Your task to perform on an android device: turn off priority inbox in the gmail app Image 0: 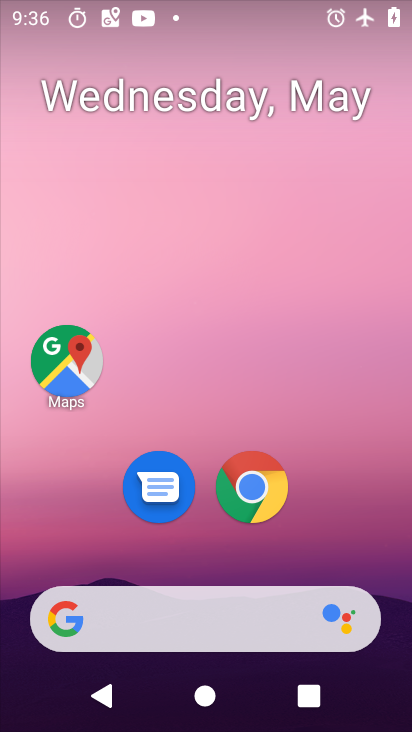
Step 0: drag from (204, 560) to (208, 133)
Your task to perform on an android device: turn off priority inbox in the gmail app Image 1: 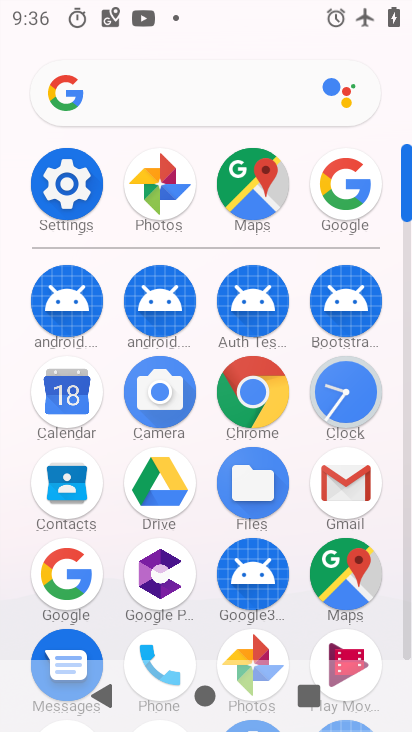
Step 1: click (332, 466)
Your task to perform on an android device: turn off priority inbox in the gmail app Image 2: 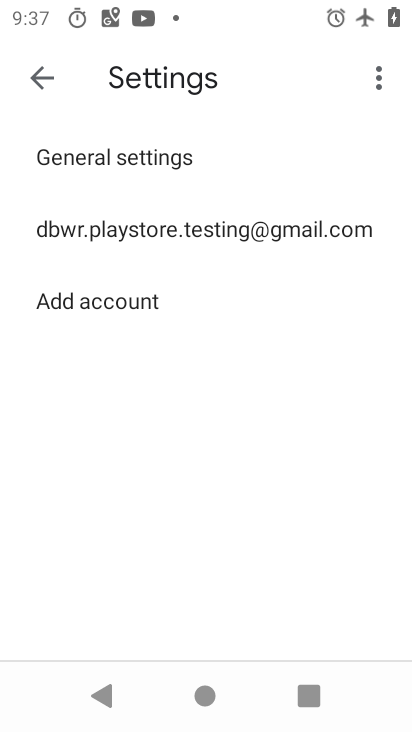
Step 2: click (275, 232)
Your task to perform on an android device: turn off priority inbox in the gmail app Image 3: 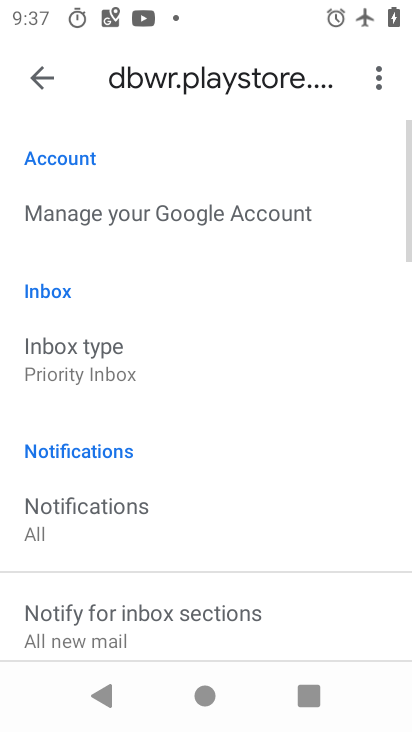
Step 3: drag from (193, 591) to (249, 346)
Your task to perform on an android device: turn off priority inbox in the gmail app Image 4: 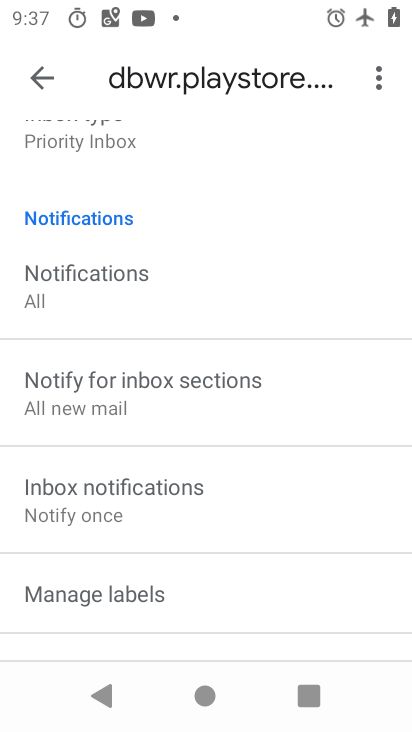
Step 4: click (103, 137)
Your task to perform on an android device: turn off priority inbox in the gmail app Image 5: 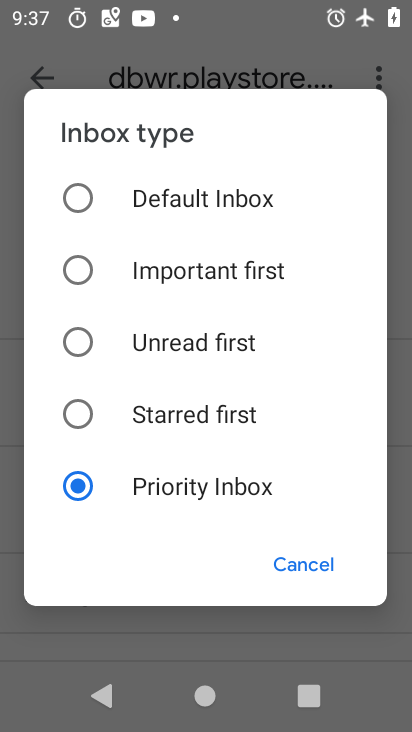
Step 5: click (146, 202)
Your task to perform on an android device: turn off priority inbox in the gmail app Image 6: 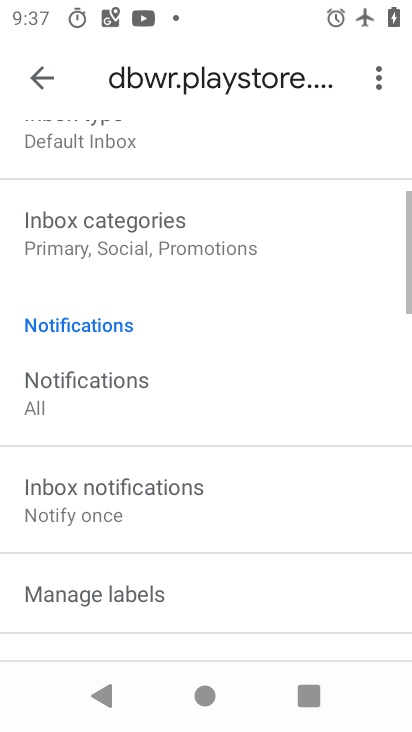
Step 6: task complete